Your task to perform on an android device: make emails show in primary in the gmail app Image 0: 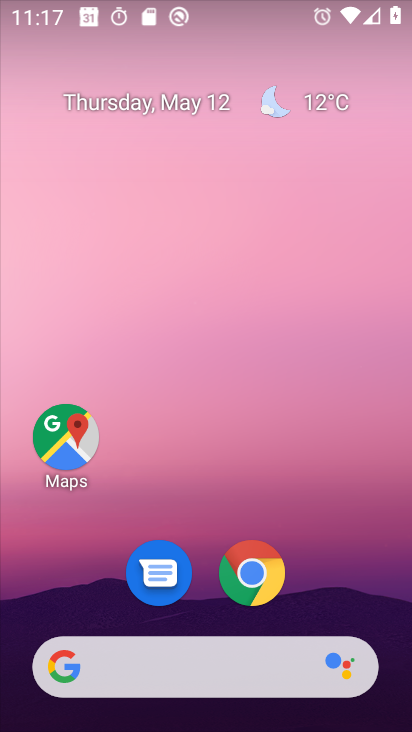
Step 0: drag from (377, 502) to (372, 310)
Your task to perform on an android device: make emails show in primary in the gmail app Image 1: 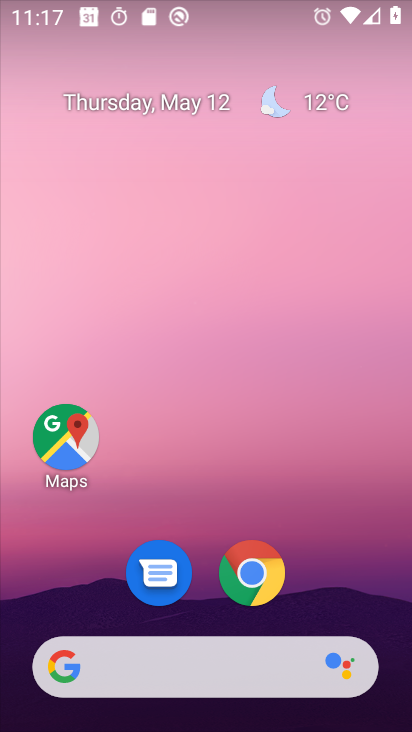
Step 1: drag from (392, 651) to (411, 144)
Your task to perform on an android device: make emails show in primary in the gmail app Image 2: 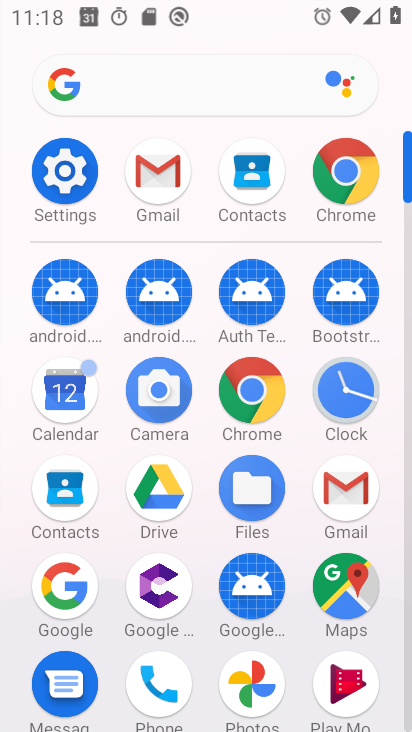
Step 2: click (330, 501)
Your task to perform on an android device: make emails show in primary in the gmail app Image 3: 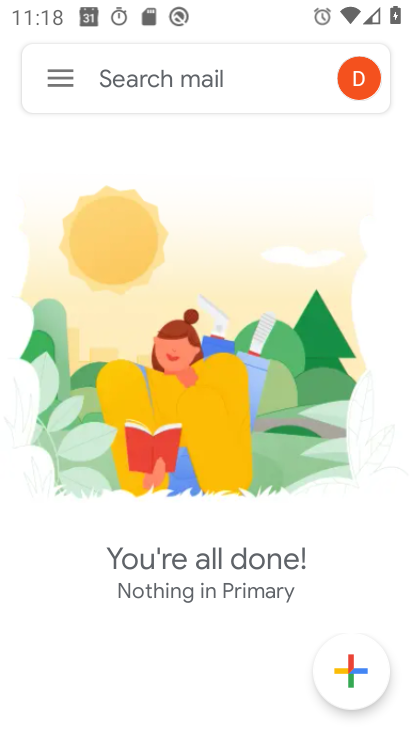
Step 3: click (153, 81)
Your task to perform on an android device: make emails show in primary in the gmail app Image 4: 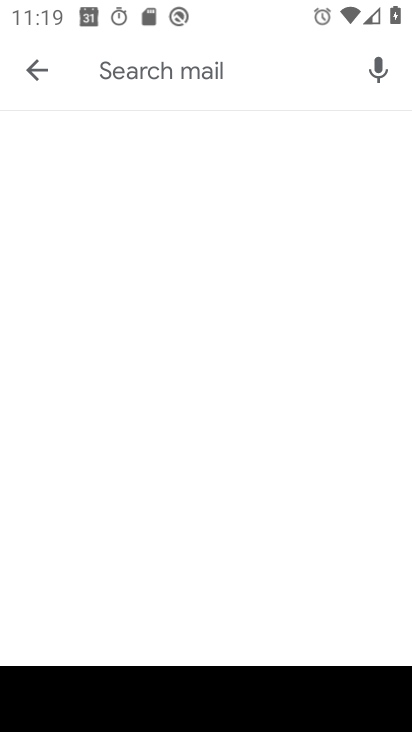
Step 4: press home button
Your task to perform on an android device: make emails show in primary in the gmail app Image 5: 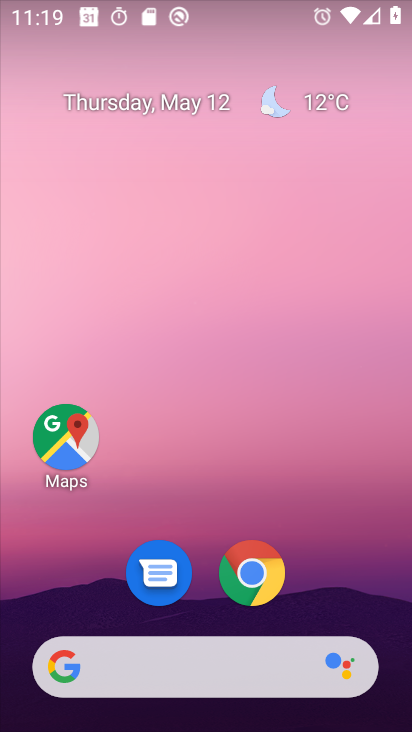
Step 5: drag from (341, 299) to (333, 196)
Your task to perform on an android device: make emails show in primary in the gmail app Image 6: 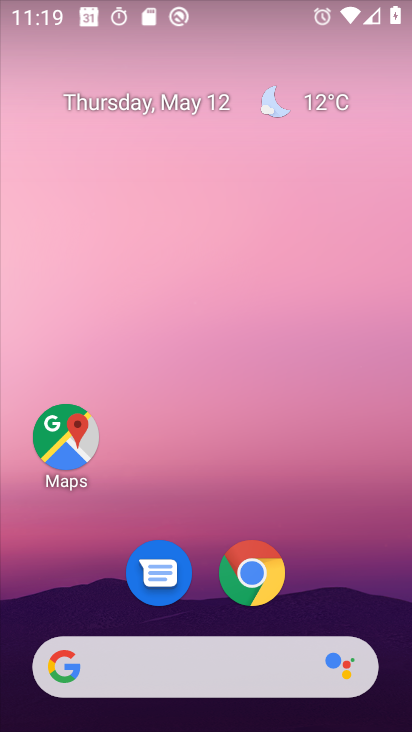
Step 6: drag from (399, 698) to (378, 168)
Your task to perform on an android device: make emails show in primary in the gmail app Image 7: 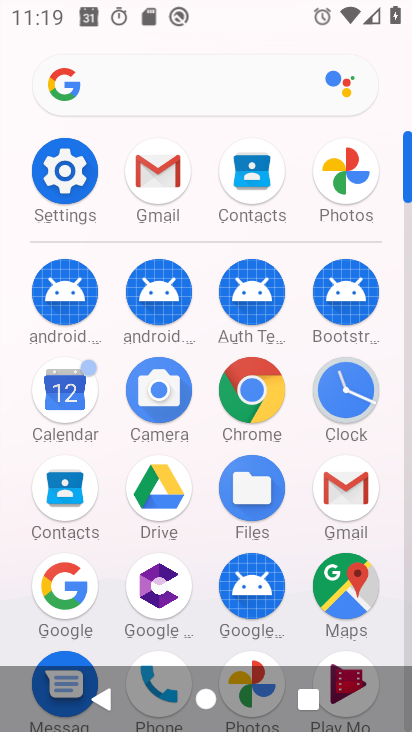
Step 7: click (166, 189)
Your task to perform on an android device: make emails show in primary in the gmail app Image 8: 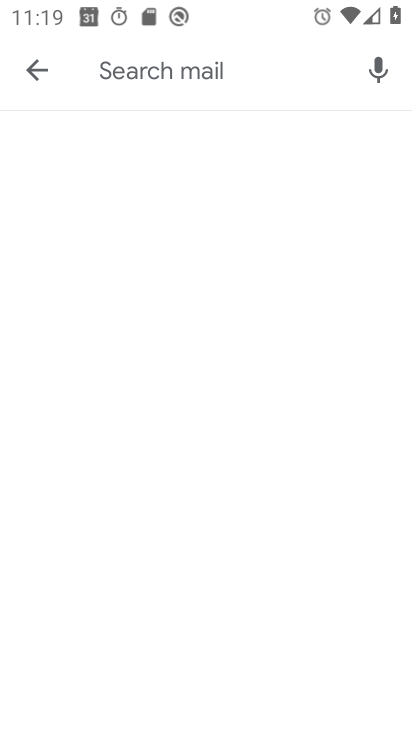
Step 8: click (35, 65)
Your task to perform on an android device: make emails show in primary in the gmail app Image 9: 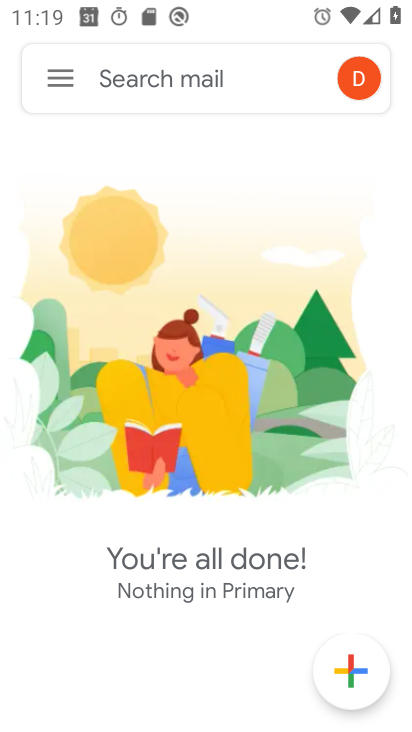
Step 9: click (56, 77)
Your task to perform on an android device: make emails show in primary in the gmail app Image 10: 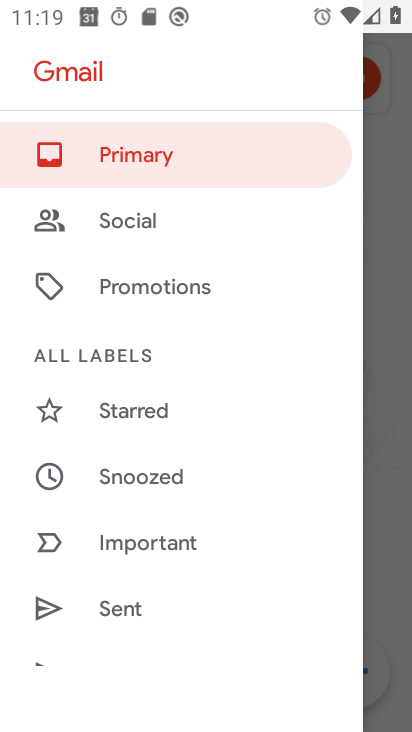
Step 10: click (112, 152)
Your task to perform on an android device: make emails show in primary in the gmail app Image 11: 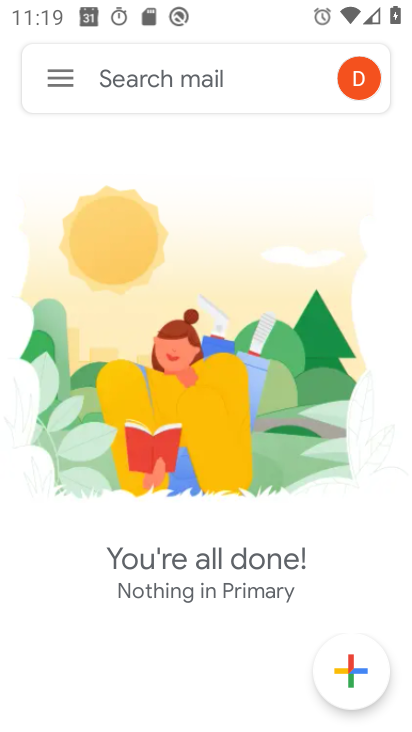
Step 11: task complete